Your task to perform on an android device: change the clock display to show seconds Image 0: 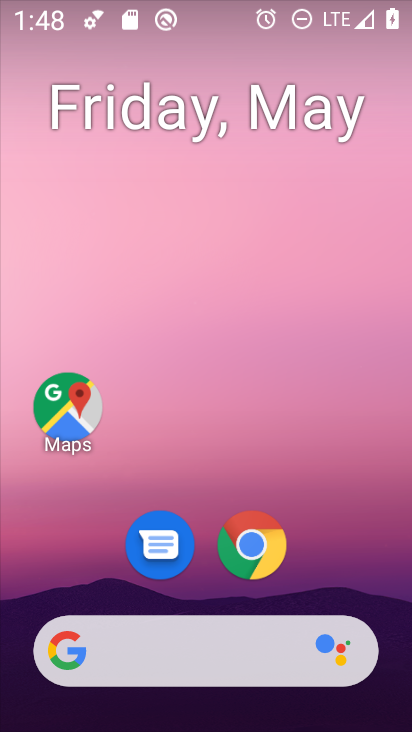
Step 0: drag from (308, 490) to (306, 246)
Your task to perform on an android device: change the clock display to show seconds Image 1: 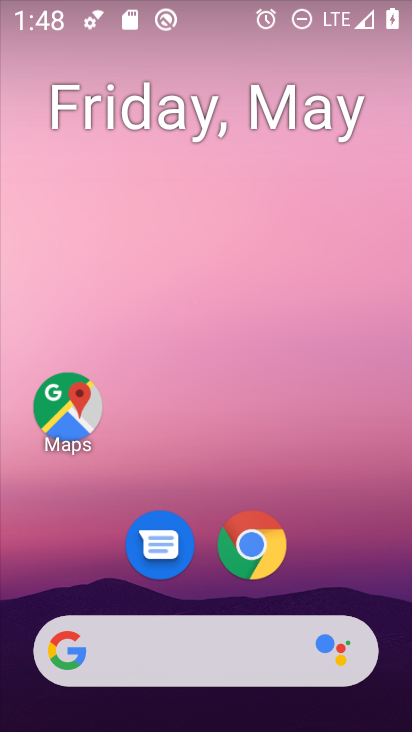
Step 1: drag from (323, 476) to (326, 268)
Your task to perform on an android device: change the clock display to show seconds Image 2: 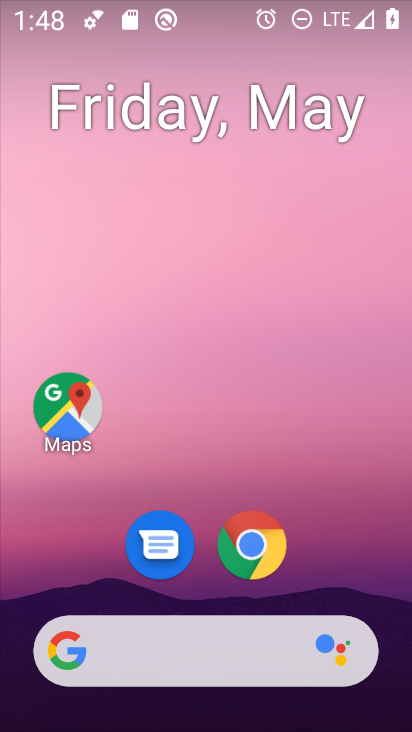
Step 2: drag from (327, 485) to (327, 165)
Your task to perform on an android device: change the clock display to show seconds Image 3: 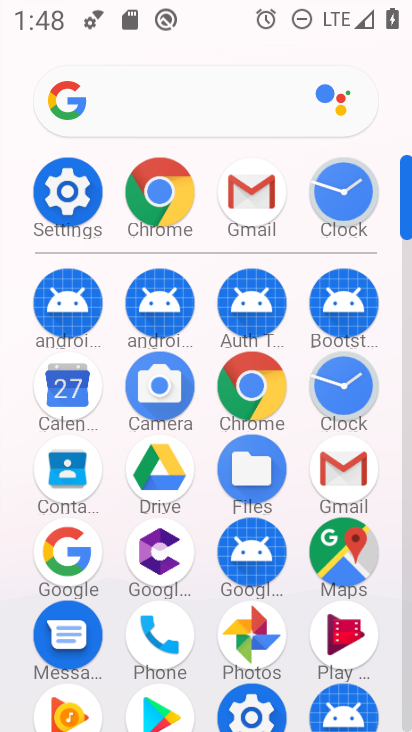
Step 3: click (339, 372)
Your task to perform on an android device: change the clock display to show seconds Image 4: 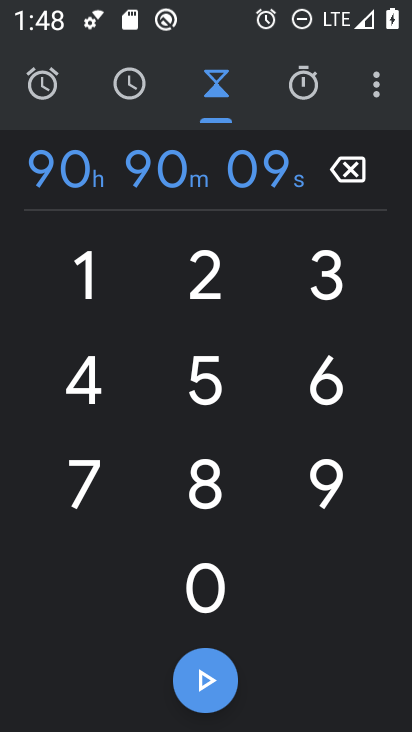
Step 4: click (374, 89)
Your task to perform on an android device: change the clock display to show seconds Image 5: 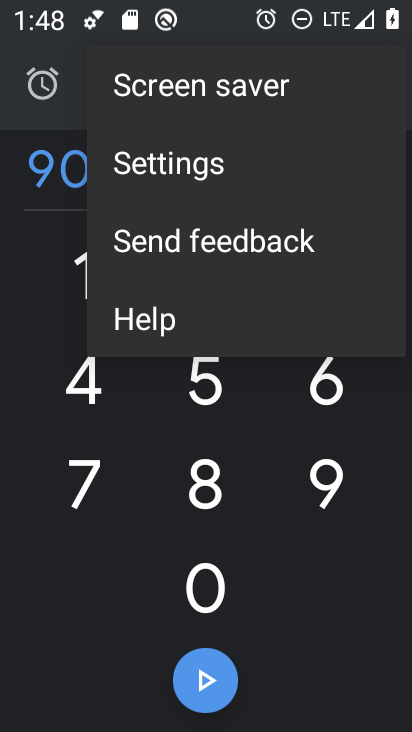
Step 5: click (235, 169)
Your task to perform on an android device: change the clock display to show seconds Image 6: 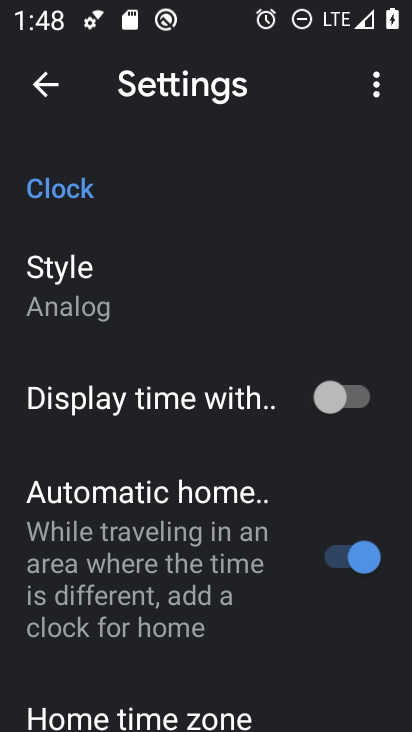
Step 6: click (368, 396)
Your task to perform on an android device: change the clock display to show seconds Image 7: 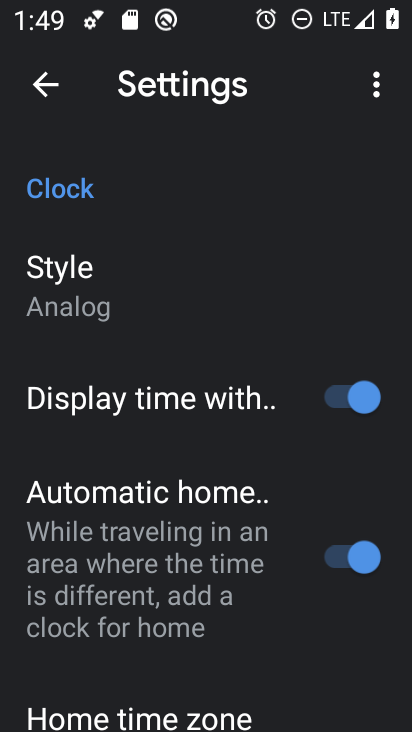
Step 7: task complete